Your task to perform on an android device: Open Google Image 0: 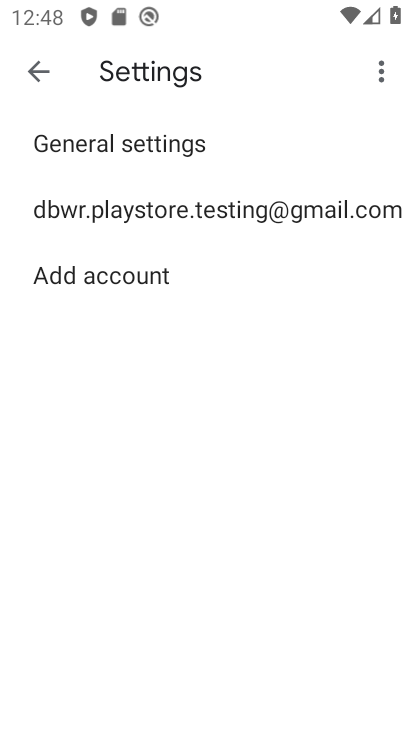
Step 0: task complete